Your task to perform on an android device: When is my next meeting? Image 0: 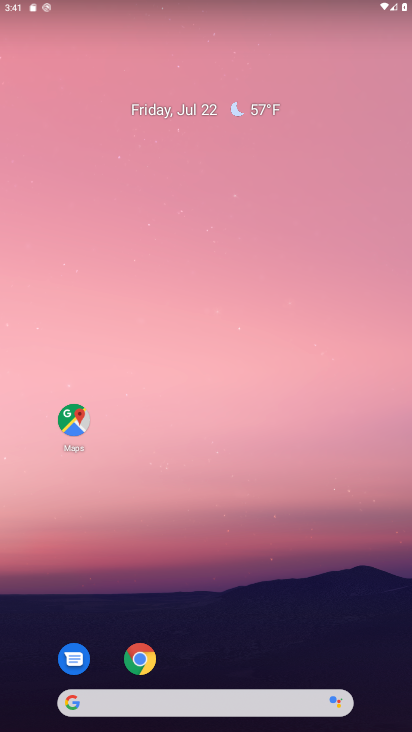
Step 0: drag from (266, 594) to (339, 56)
Your task to perform on an android device: When is my next meeting? Image 1: 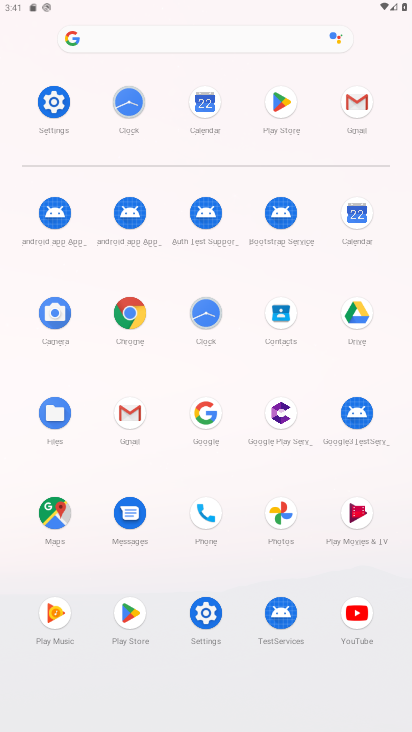
Step 1: click (360, 211)
Your task to perform on an android device: When is my next meeting? Image 2: 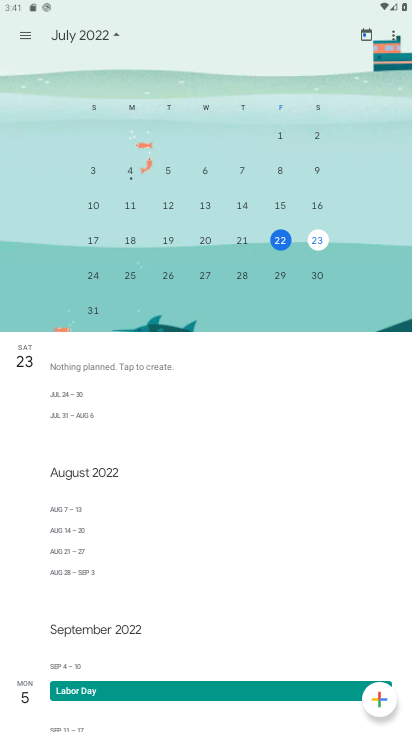
Step 2: click (273, 242)
Your task to perform on an android device: When is my next meeting? Image 3: 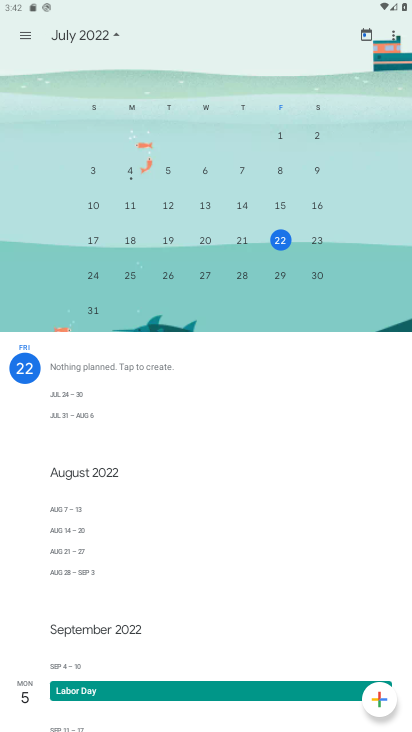
Step 3: task complete